Your task to perform on an android device: change timer sound Image 0: 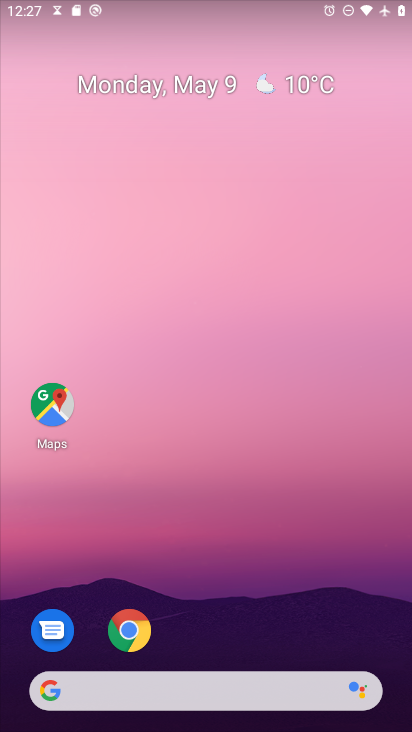
Step 0: drag from (202, 689) to (346, 152)
Your task to perform on an android device: change timer sound Image 1: 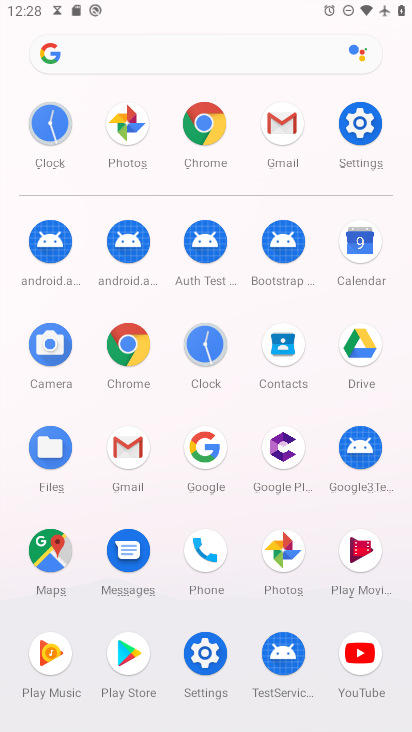
Step 1: click (207, 344)
Your task to perform on an android device: change timer sound Image 2: 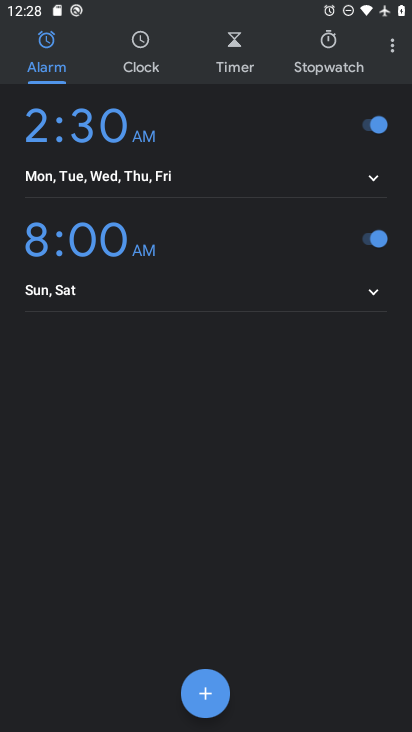
Step 2: click (394, 53)
Your task to perform on an android device: change timer sound Image 3: 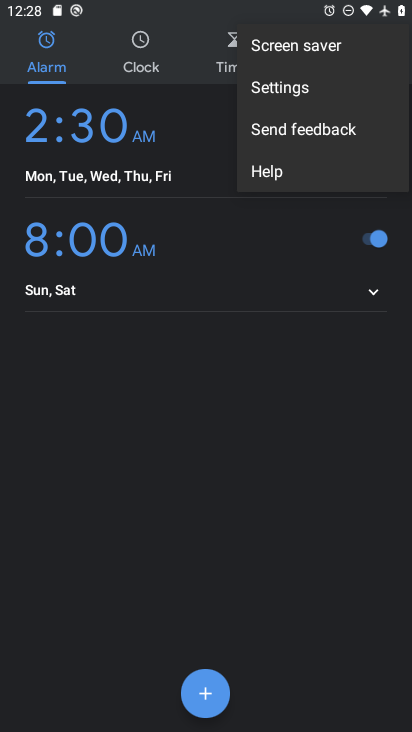
Step 3: click (307, 91)
Your task to perform on an android device: change timer sound Image 4: 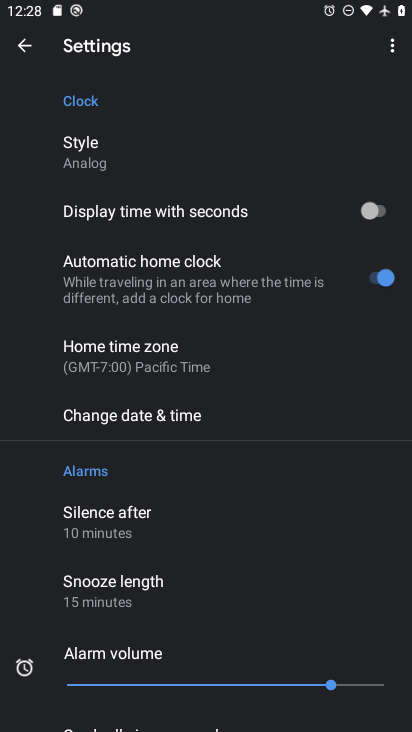
Step 4: drag from (240, 580) to (387, 123)
Your task to perform on an android device: change timer sound Image 5: 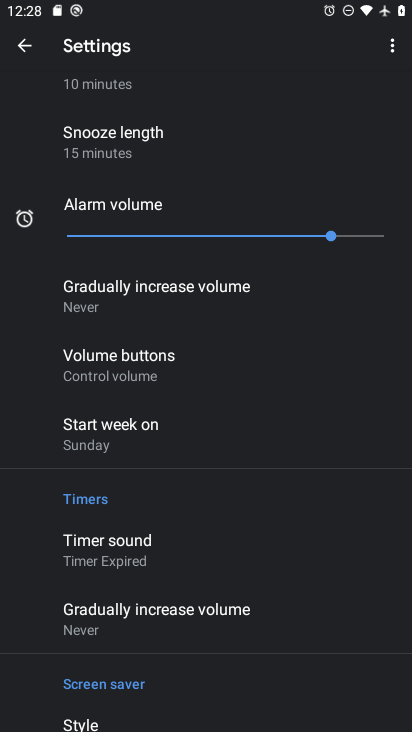
Step 5: click (145, 557)
Your task to perform on an android device: change timer sound Image 6: 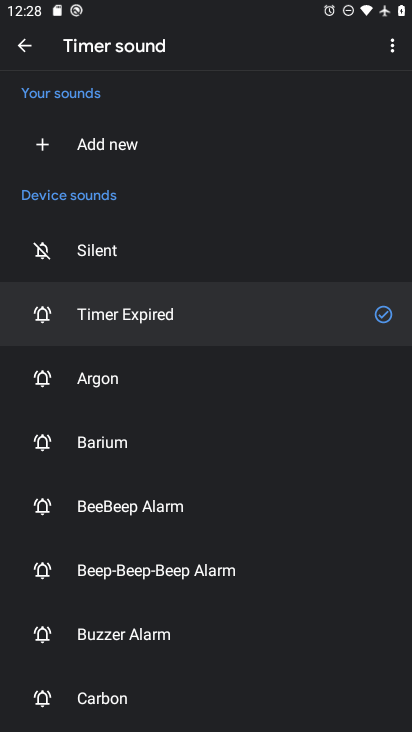
Step 6: click (146, 497)
Your task to perform on an android device: change timer sound Image 7: 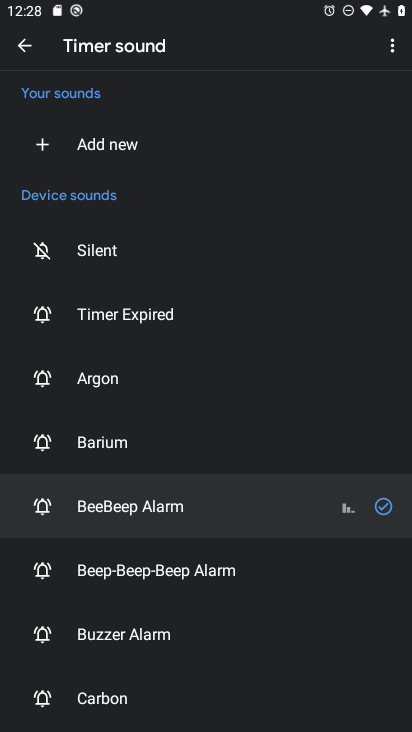
Step 7: task complete